Your task to perform on an android device: turn smart compose on in the gmail app Image 0: 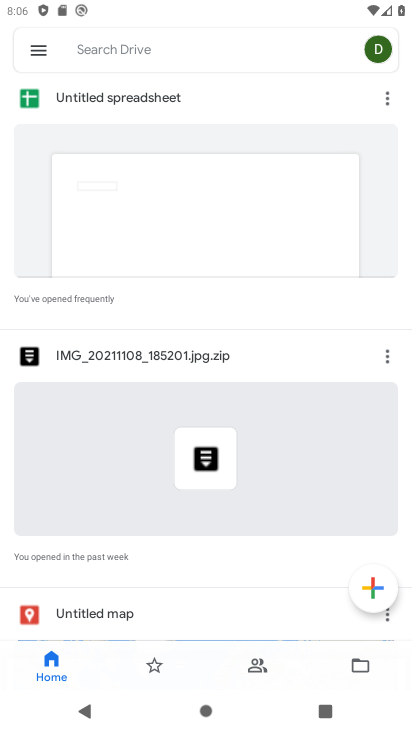
Step 0: press home button
Your task to perform on an android device: turn smart compose on in the gmail app Image 1: 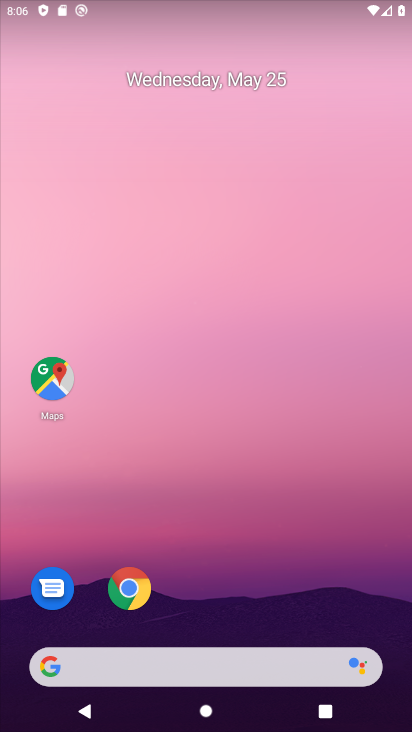
Step 1: drag from (47, 549) to (212, 62)
Your task to perform on an android device: turn smart compose on in the gmail app Image 2: 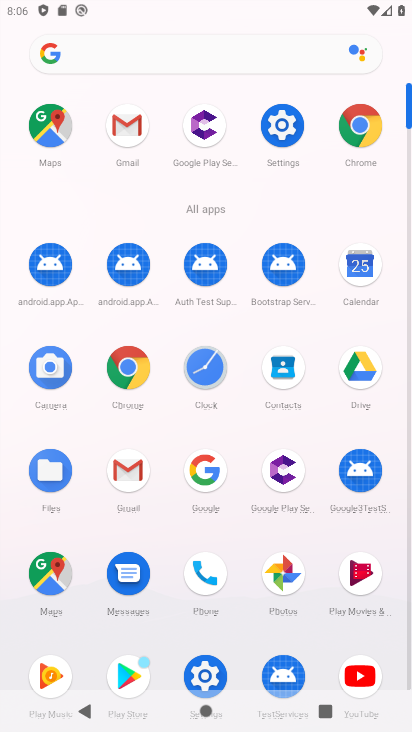
Step 2: click (124, 133)
Your task to perform on an android device: turn smart compose on in the gmail app Image 3: 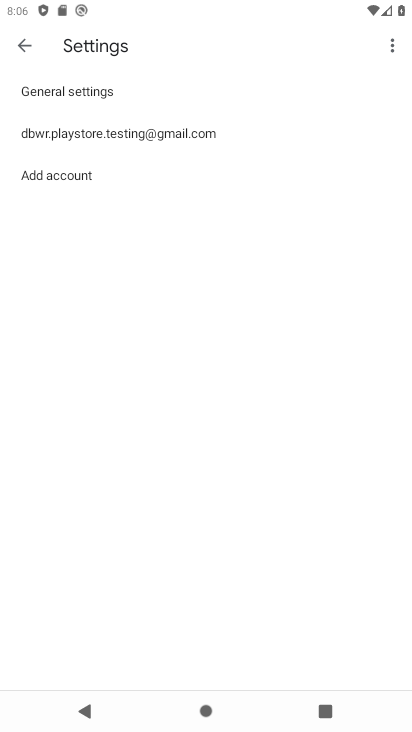
Step 3: click (184, 128)
Your task to perform on an android device: turn smart compose on in the gmail app Image 4: 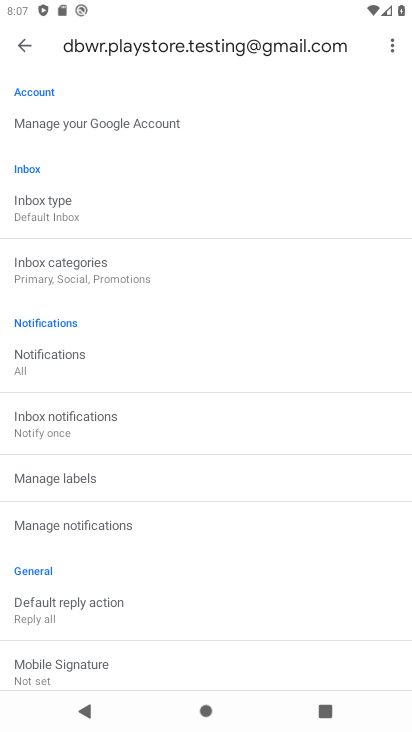
Step 4: task complete